Your task to perform on an android device: Search for sushi restaurants on Maps Image 0: 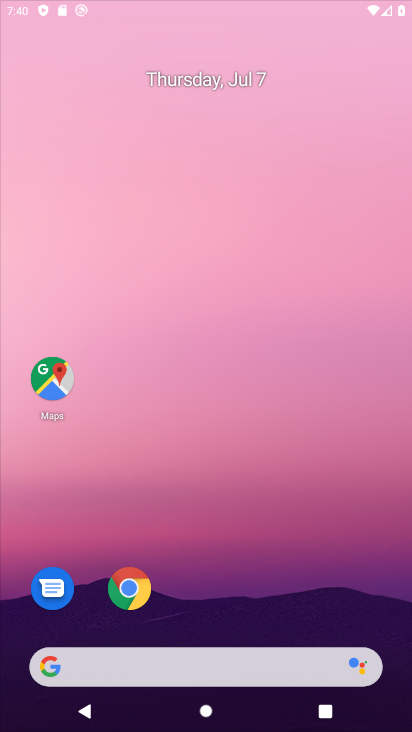
Step 0: click (298, 235)
Your task to perform on an android device: Search for sushi restaurants on Maps Image 1: 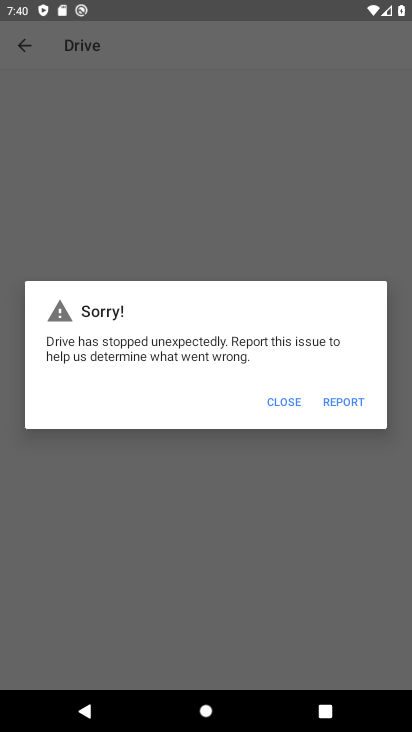
Step 1: click (281, 406)
Your task to perform on an android device: Search for sushi restaurants on Maps Image 2: 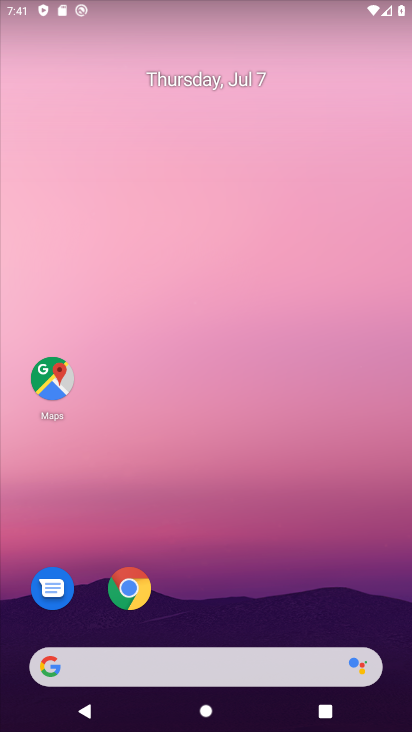
Step 2: drag from (226, 622) to (226, 211)
Your task to perform on an android device: Search for sushi restaurants on Maps Image 3: 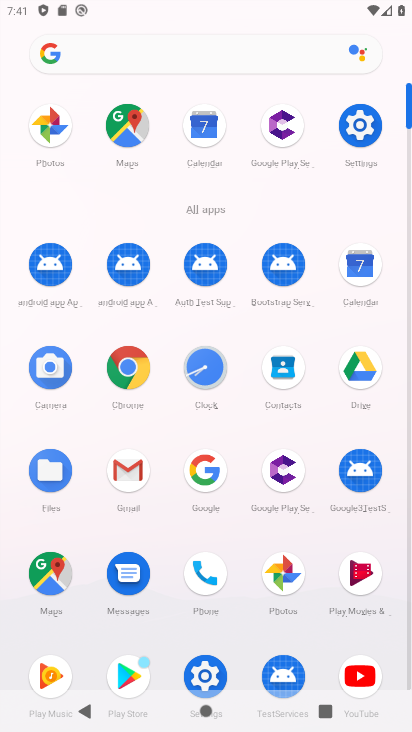
Step 3: click (52, 569)
Your task to perform on an android device: Search for sushi restaurants on Maps Image 4: 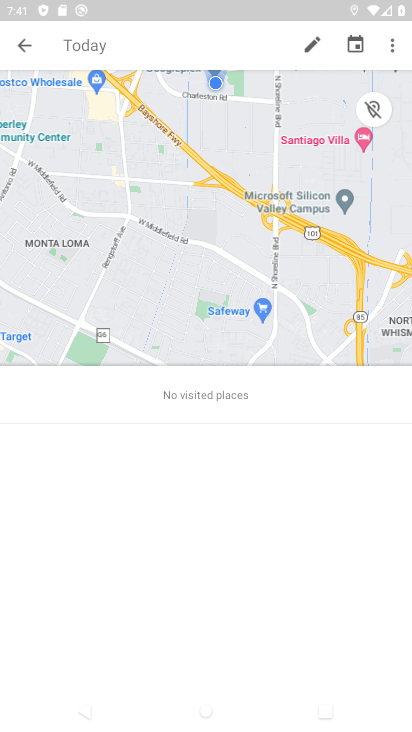
Step 4: click (27, 47)
Your task to perform on an android device: Search for sushi restaurants on Maps Image 5: 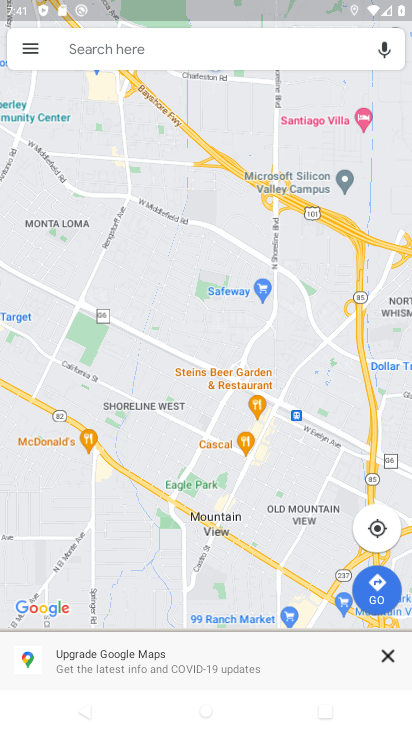
Step 5: click (121, 46)
Your task to perform on an android device: Search for sushi restaurants on Maps Image 6: 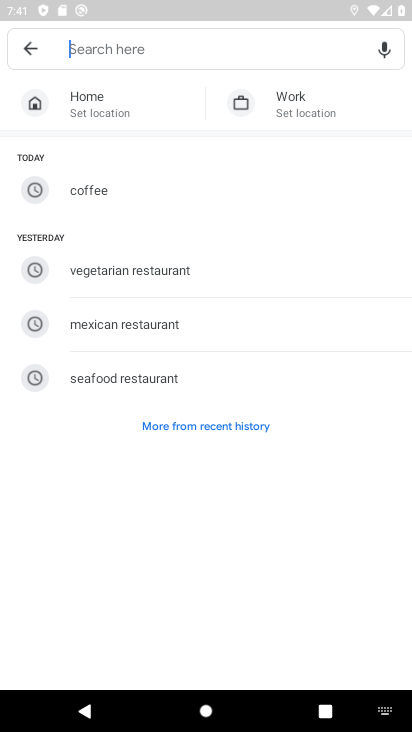
Step 6: type "sushi restaurants"
Your task to perform on an android device: Search for sushi restaurants on Maps Image 7: 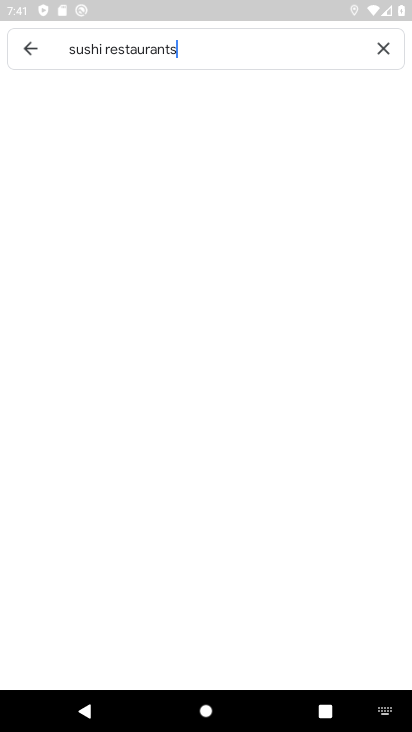
Step 7: type ""
Your task to perform on an android device: Search for sushi restaurants on Maps Image 8: 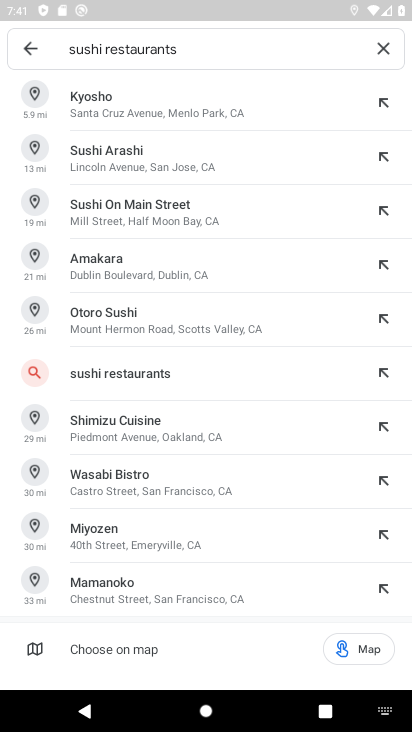
Step 8: click (133, 381)
Your task to perform on an android device: Search for sushi restaurants on Maps Image 9: 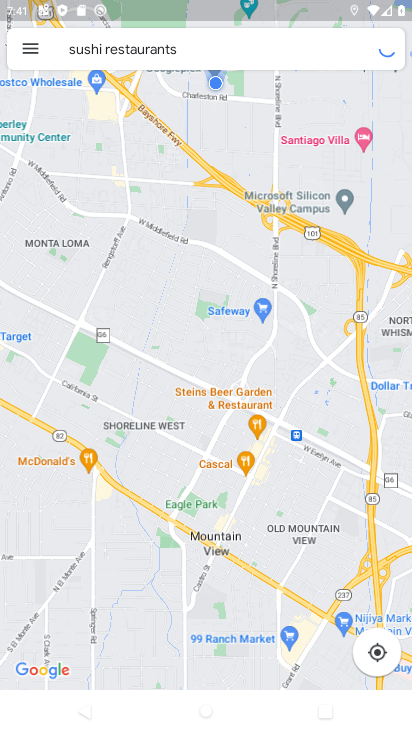
Step 9: task complete